Your task to perform on an android device: allow notifications from all sites in the chrome app Image 0: 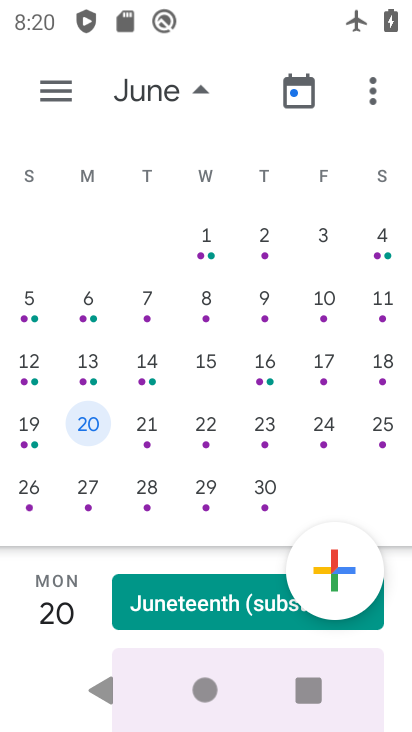
Step 0: press home button
Your task to perform on an android device: allow notifications from all sites in the chrome app Image 1: 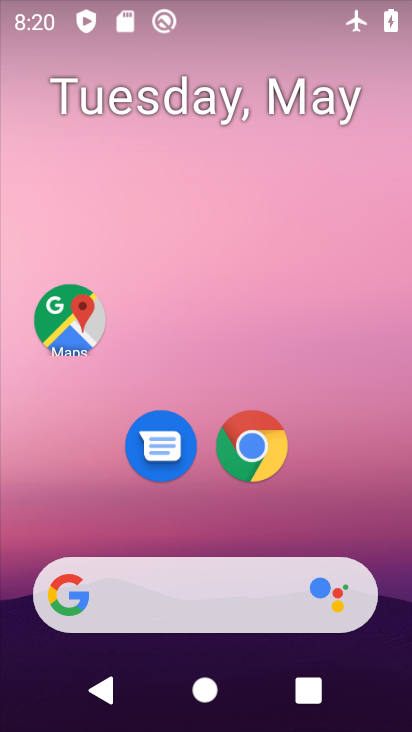
Step 1: drag from (378, 516) to (378, 209)
Your task to perform on an android device: allow notifications from all sites in the chrome app Image 2: 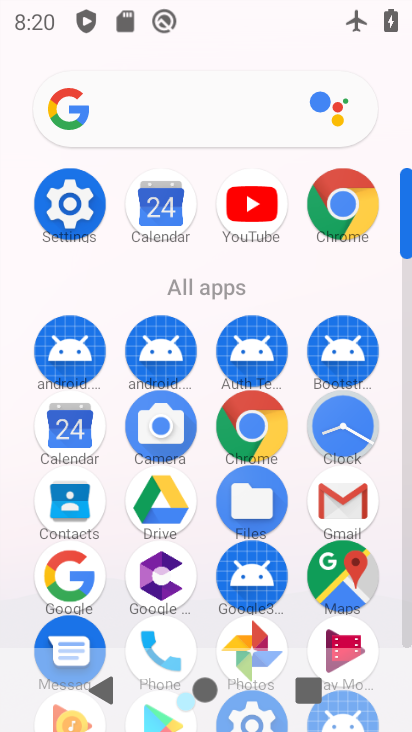
Step 2: click (260, 433)
Your task to perform on an android device: allow notifications from all sites in the chrome app Image 3: 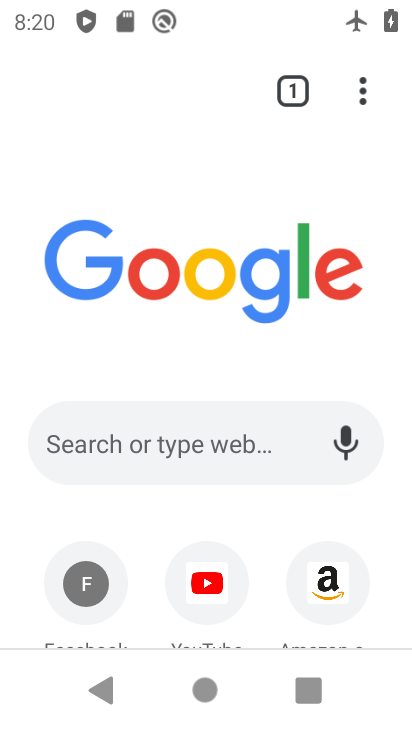
Step 3: click (361, 103)
Your task to perform on an android device: allow notifications from all sites in the chrome app Image 4: 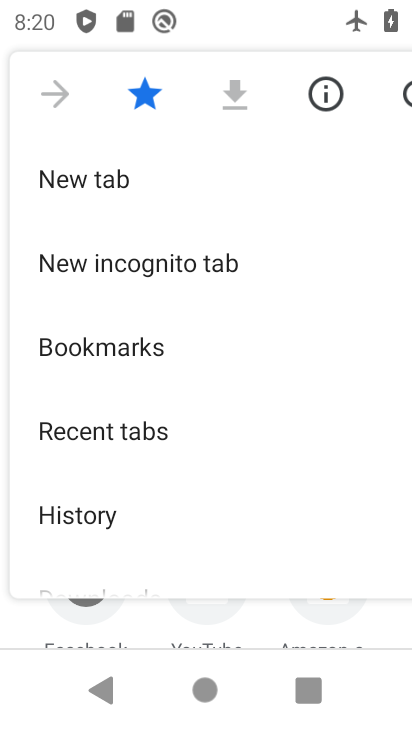
Step 4: drag from (290, 460) to (314, 366)
Your task to perform on an android device: allow notifications from all sites in the chrome app Image 5: 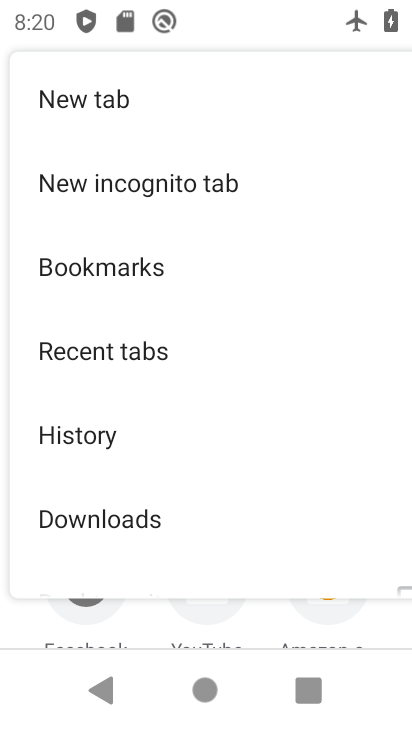
Step 5: drag from (291, 511) to (298, 398)
Your task to perform on an android device: allow notifications from all sites in the chrome app Image 6: 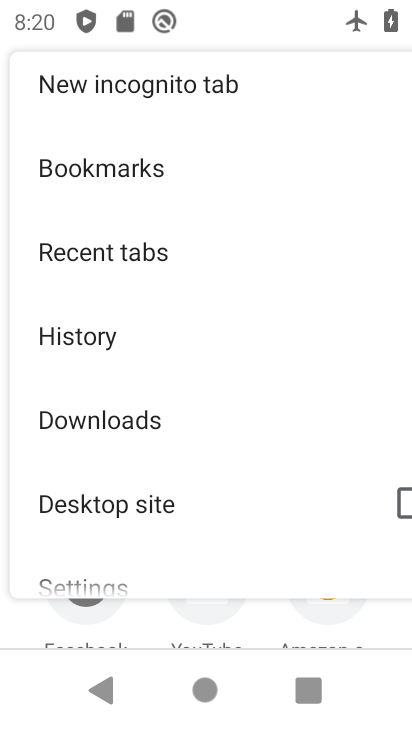
Step 6: drag from (280, 490) to (283, 393)
Your task to perform on an android device: allow notifications from all sites in the chrome app Image 7: 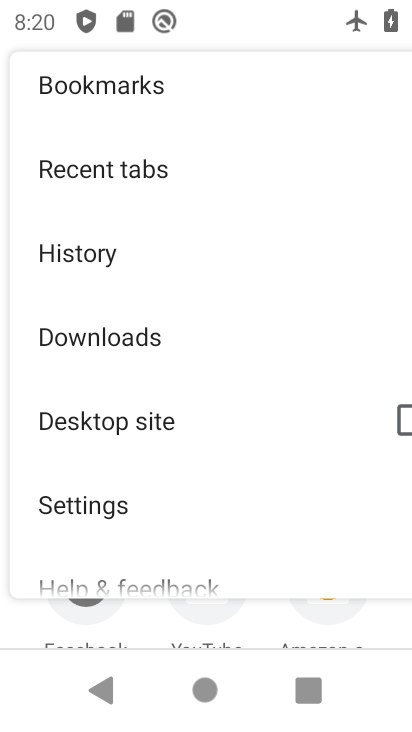
Step 7: drag from (259, 545) to (281, 430)
Your task to perform on an android device: allow notifications from all sites in the chrome app Image 8: 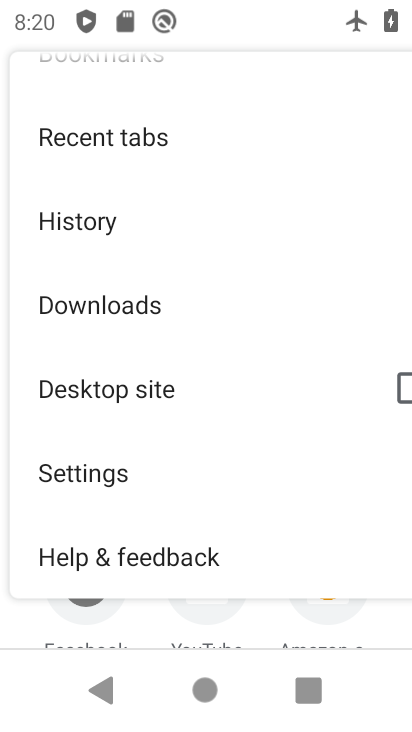
Step 8: click (146, 485)
Your task to perform on an android device: allow notifications from all sites in the chrome app Image 9: 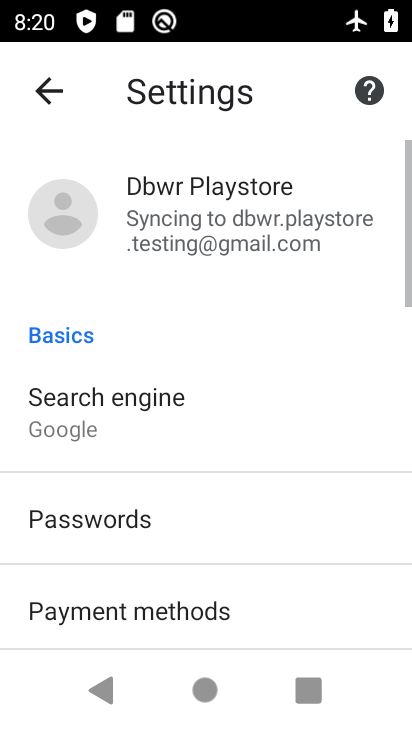
Step 9: drag from (295, 577) to (312, 500)
Your task to perform on an android device: allow notifications from all sites in the chrome app Image 10: 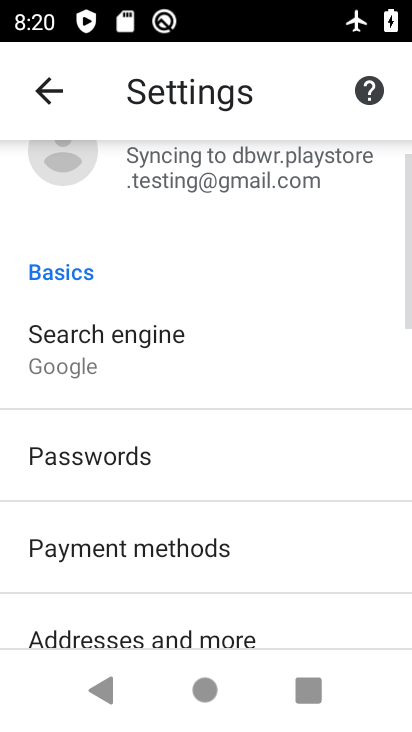
Step 10: drag from (290, 598) to (300, 498)
Your task to perform on an android device: allow notifications from all sites in the chrome app Image 11: 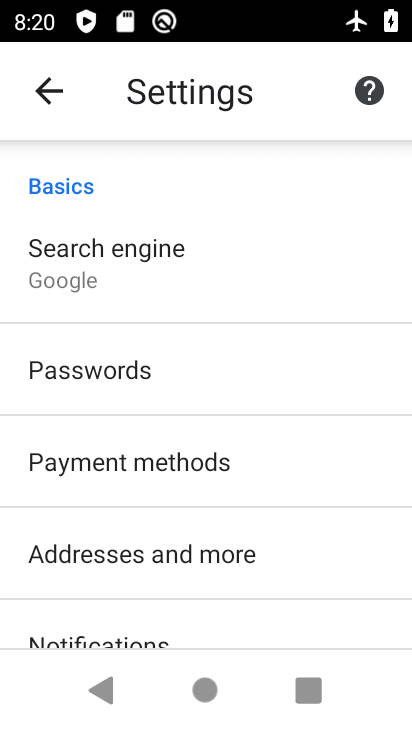
Step 11: drag from (292, 545) to (305, 469)
Your task to perform on an android device: allow notifications from all sites in the chrome app Image 12: 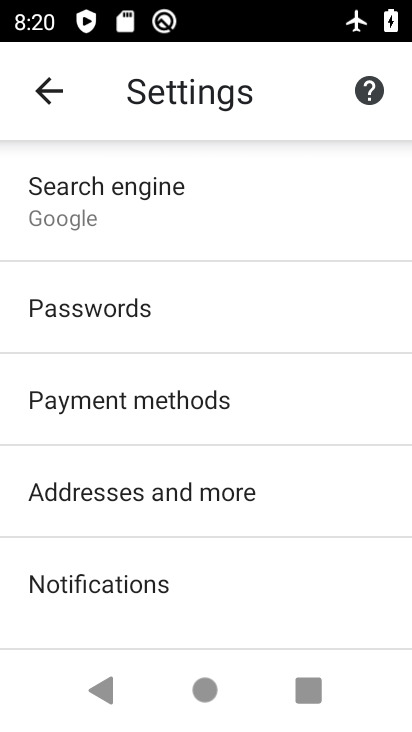
Step 12: drag from (326, 591) to (331, 492)
Your task to perform on an android device: allow notifications from all sites in the chrome app Image 13: 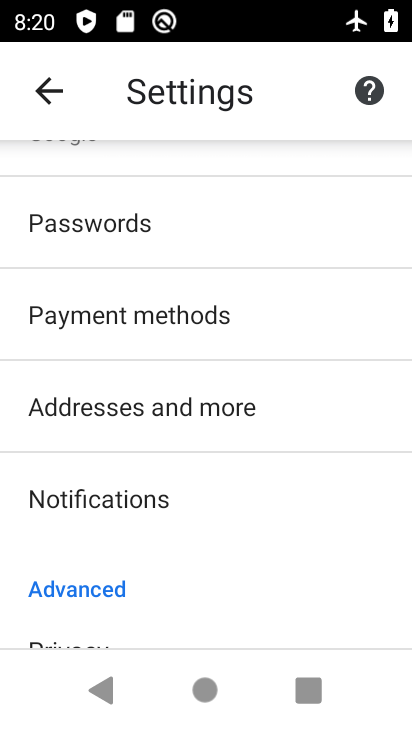
Step 13: drag from (321, 583) to (329, 485)
Your task to perform on an android device: allow notifications from all sites in the chrome app Image 14: 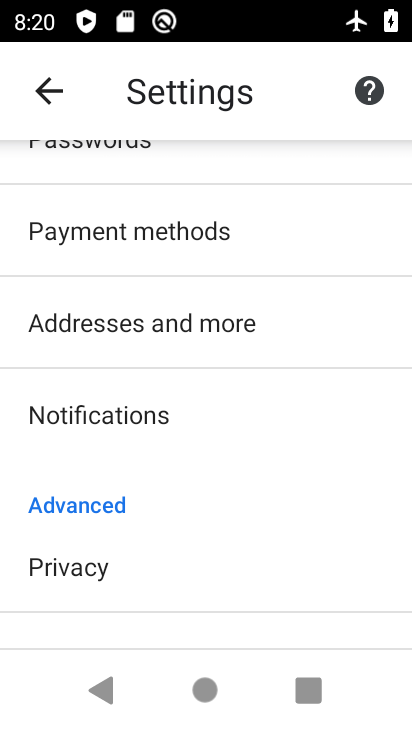
Step 14: drag from (328, 600) to (336, 508)
Your task to perform on an android device: allow notifications from all sites in the chrome app Image 15: 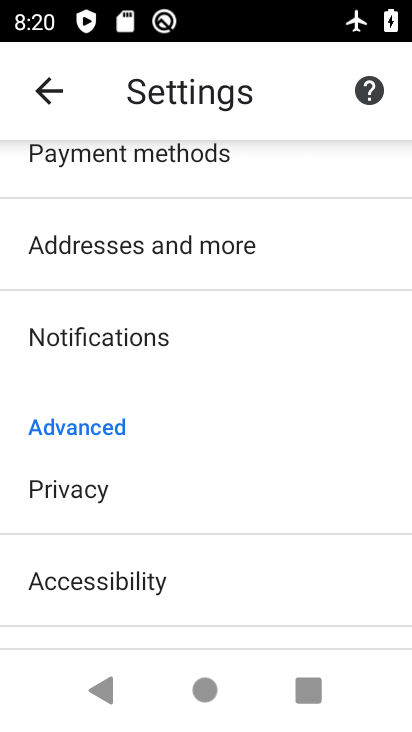
Step 15: drag from (261, 563) to (276, 454)
Your task to perform on an android device: allow notifications from all sites in the chrome app Image 16: 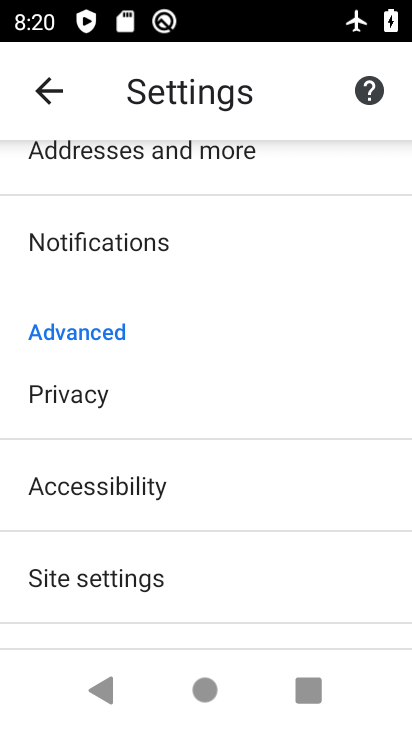
Step 16: drag from (301, 586) to (315, 475)
Your task to perform on an android device: allow notifications from all sites in the chrome app Image 17: 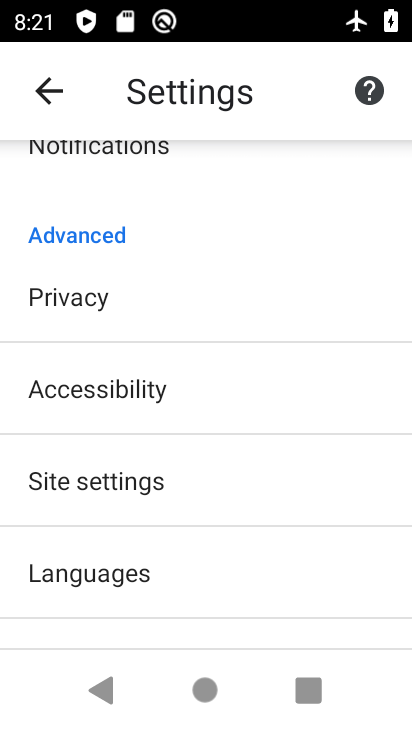
Step 17: drag from (286, 554) to (326, 447)
Your task to perform on an android device: allow notifications from all sites in the chrome app Image 18: 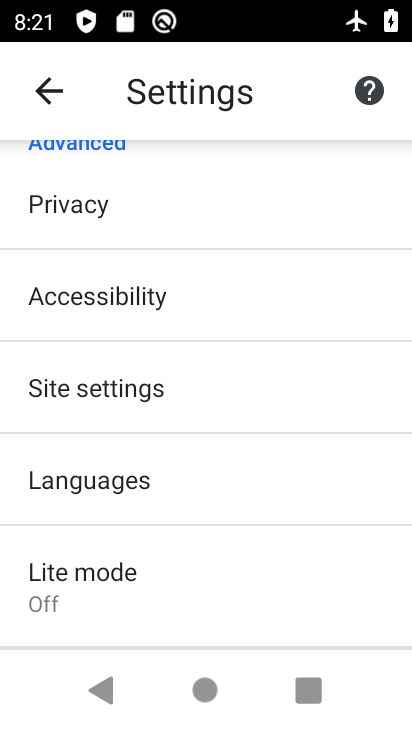
Step 18: click (251, 388)
Your task to perform on an android device: allow notifications from all sites in the chrome app Image 19: 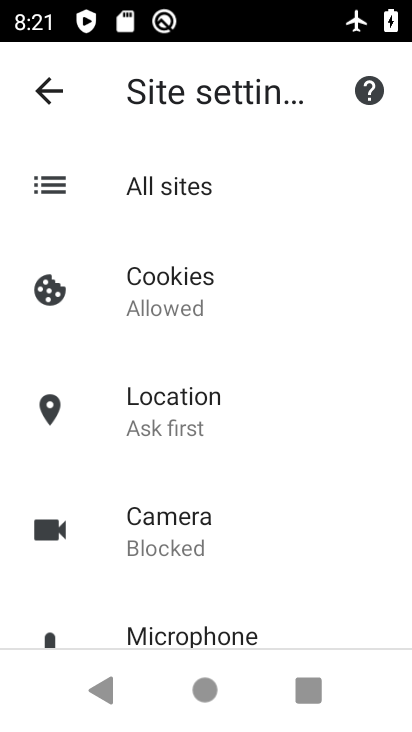
Step 19: drag from (319, 535) to (333, 441)
Your task to perform on an android device: allow notifications from all sites in the chrome app Image 20: 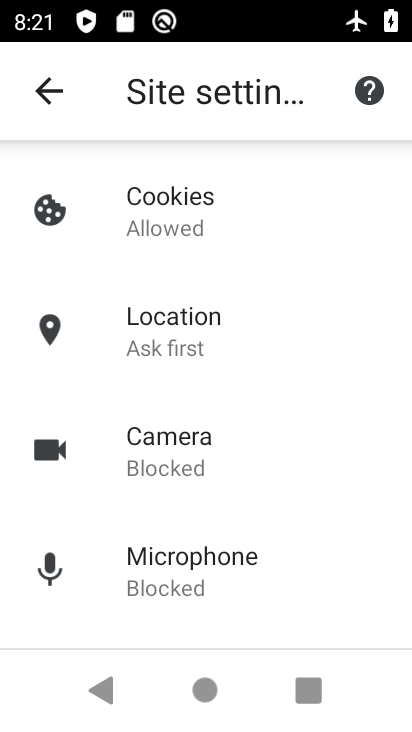
Step 20: drag from (346, 606) to (350, 508)
Your task to perform on an android device: allow notifications from all sites in the chrome app Image 21: 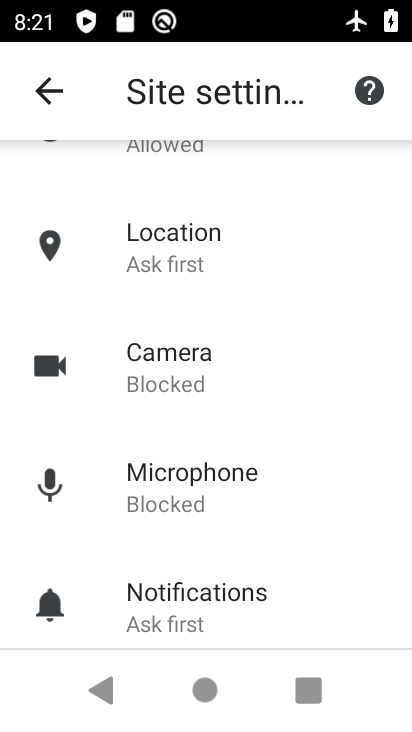
Step 21: drag from (355, 599) to (359, 512)
Your task to perform on an android device: allow notifications from all sites in the chrome app Image 22: 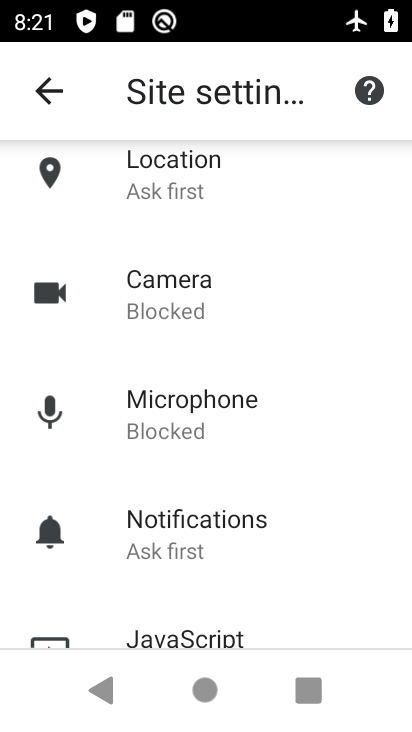
Step 22: drag from (344, 598) to (352, 528)
Your task to perform on an android device: allow notifications from all sites in the chrome app Image 23: 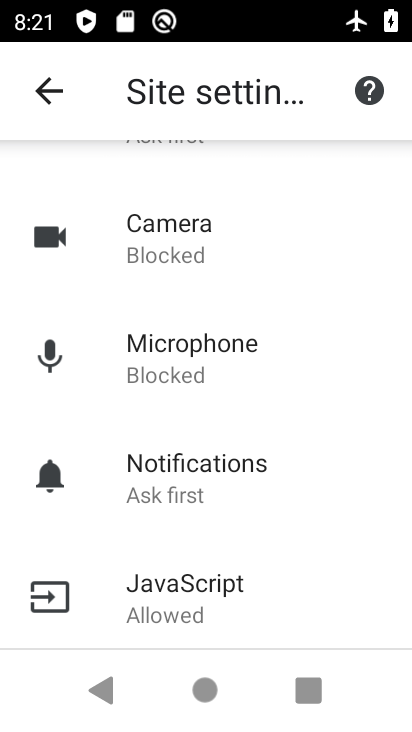
Step 23: click (246, 475)
Your task to perform on an android device: allow notifications from all sites in the chrome app Image 24: 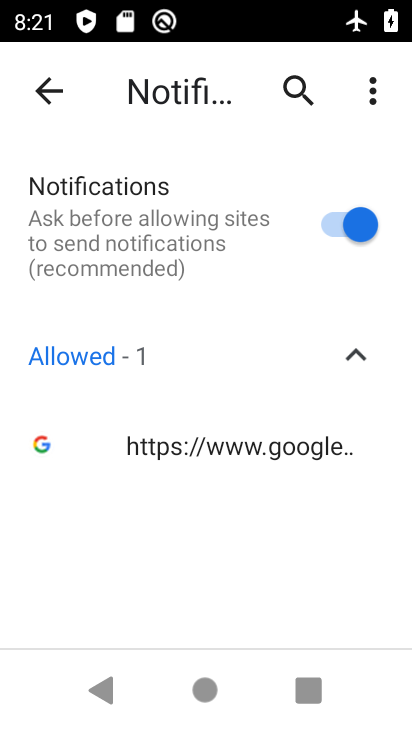
Step 24: task complete